Your task to perform on an android device: change the clock display to digital Image 0: 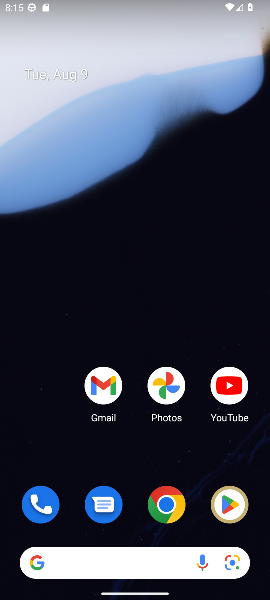
Step 0: drag from (132, 454) to (129, 50)
Your task to perform on an android device: change the clock display to digital Image 1: 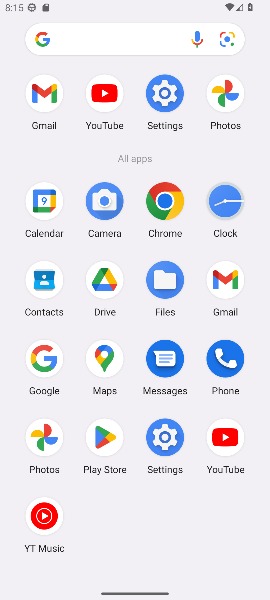
Step 1: click (227, 198)
Your task to perform on an android device: change the clock display to digital Image 2: 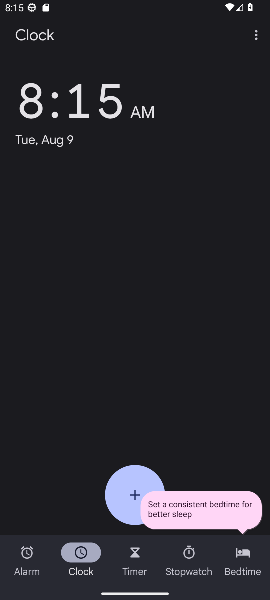
Step 2: click (257, 33)
Your task to perform on an android device: change the clock display to digital Image 3: 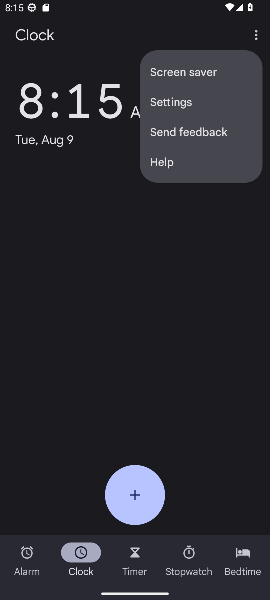
Step 3: click (187, 99)
Your task to perform on an android device: change the clock display to digital Image 4: 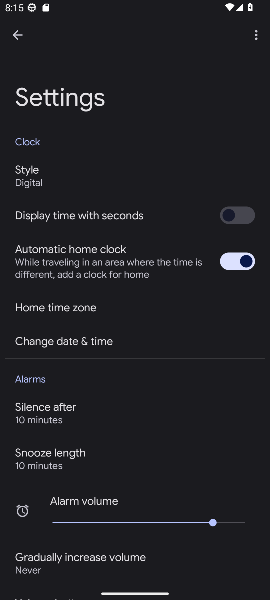
Step 4: click (25, 177)
Your task to perform on an android device: change the clock display to digital Image 5: 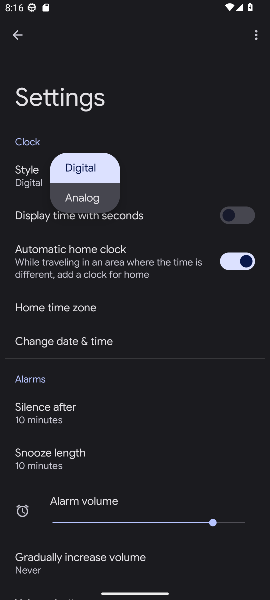
Step 5: click (65, 197)
Your task to perform on an android device: change the clock display to digital Image 6: 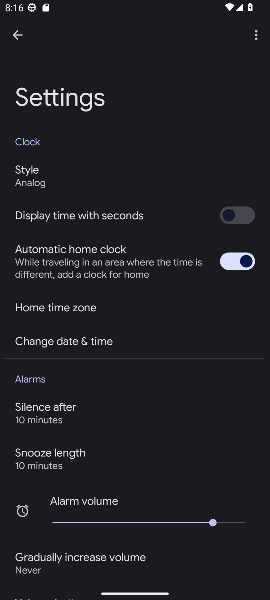
Step 6: task complete